Your task to perform on an android device: Go to notification settings Image 0: 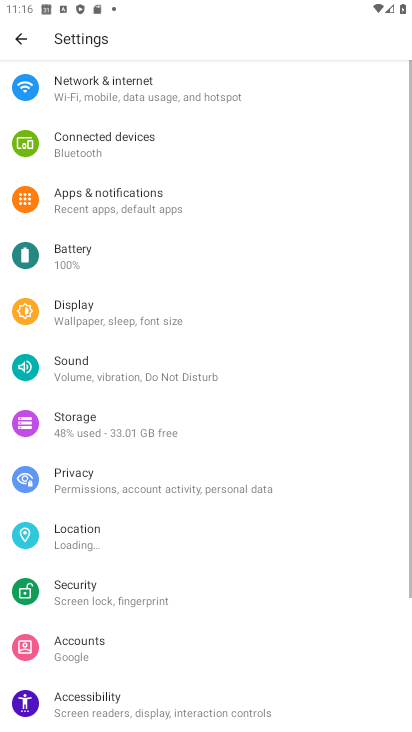
Step 0: press home button
Your task to perform on an android device: Go to notification settings Image 1: 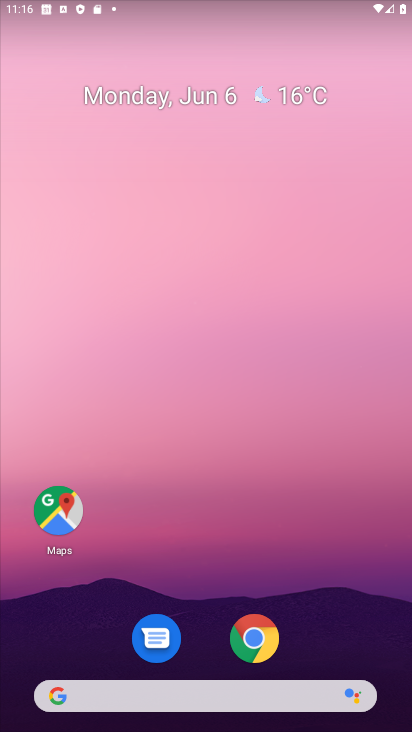
Step 1: drag from (244, 715) to (210, 137)
Your task to perform on an android device: Go to notification settings Image 2: 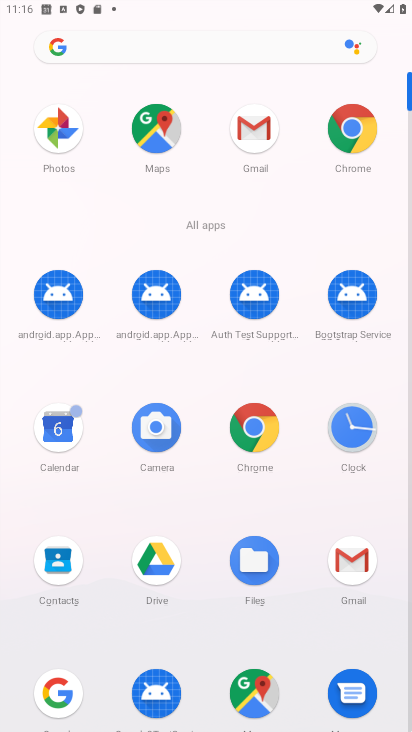
Step 2: drag from (216, 526) to (215, 405)
Your task to perform on an android device: Go to notification settings Image 3: 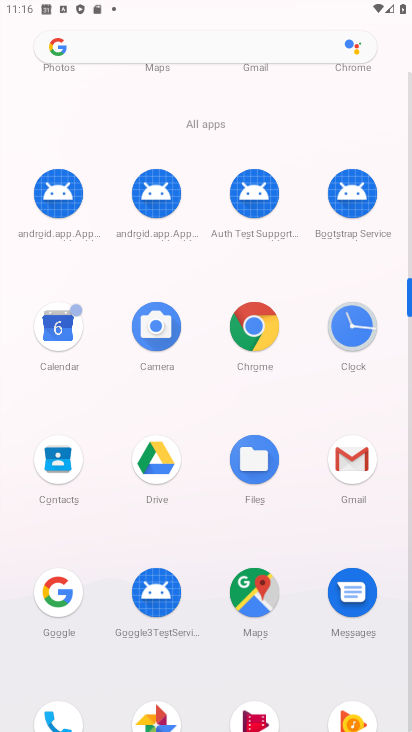
Step 3: drag from (209, 652) to (229, 487)
Your task to perform on an android device: Go to notification settings Image 4: 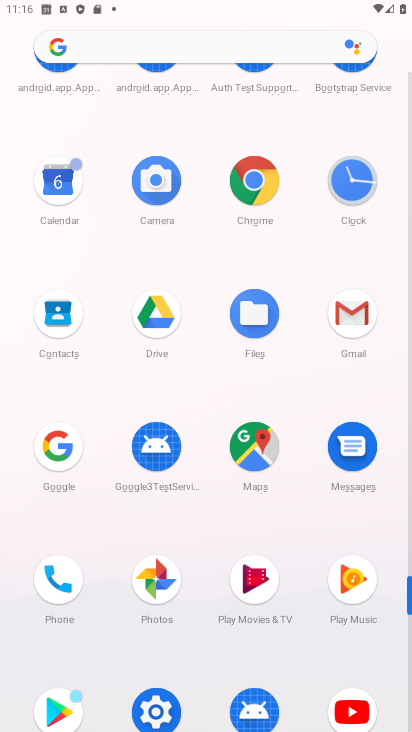
Step 4: click (154, 706)
Your task to perform on an android device: Go to notification settings Image 5: 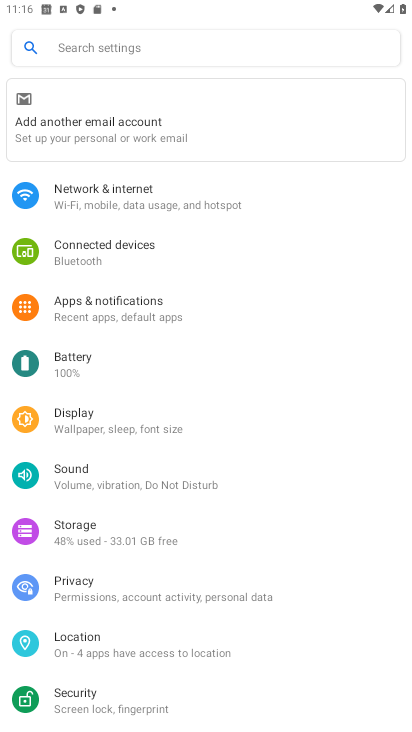
Step 5: click (158, 46)
Your task to perform on an android device: Go to notification settings Image 6: 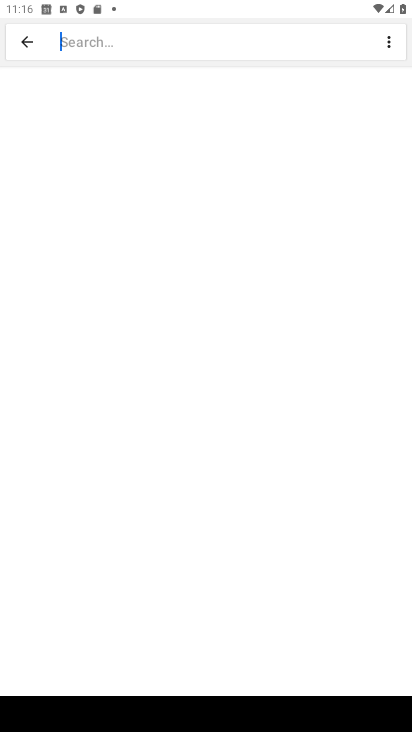
Step 6: drag from (377, 728) to (366, 642)
Your task to perform on an android device: Go to notification settings Image 7: 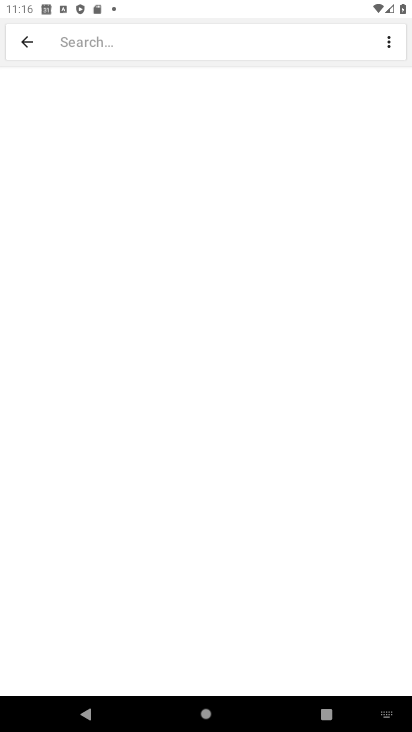
Step 7: click (390, 713)
Your task to perform on an android device: Go to notification settings Image 8: 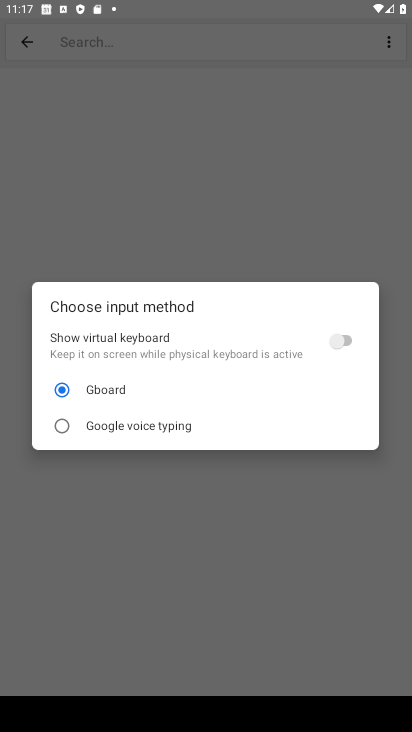
Step 8: click (349, 335)
Your task to perform on an android device: Go to notification settings Image 9: 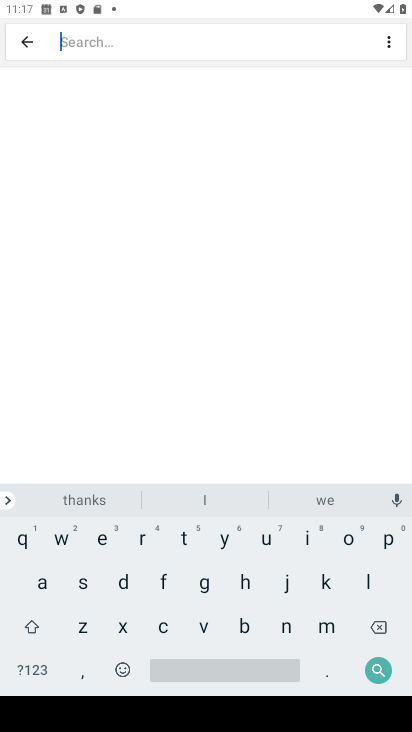
Step 9: click (288, 615)
Your task to perform on an android device: Go to notification settings Image 10: 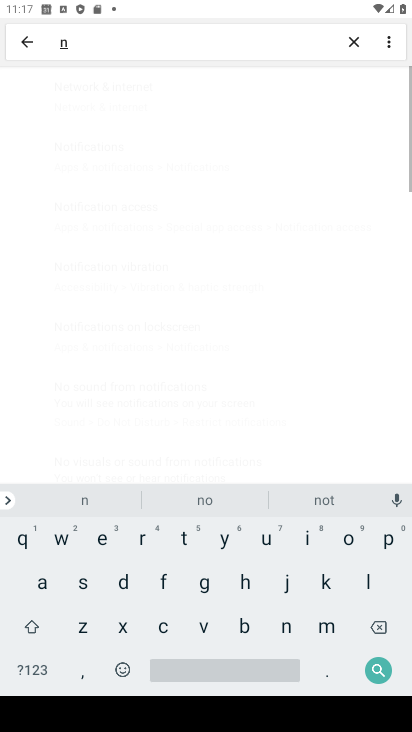
Step 10: click (341, 539)
Your task to perform on an android device: Go to notification settings Image 11: 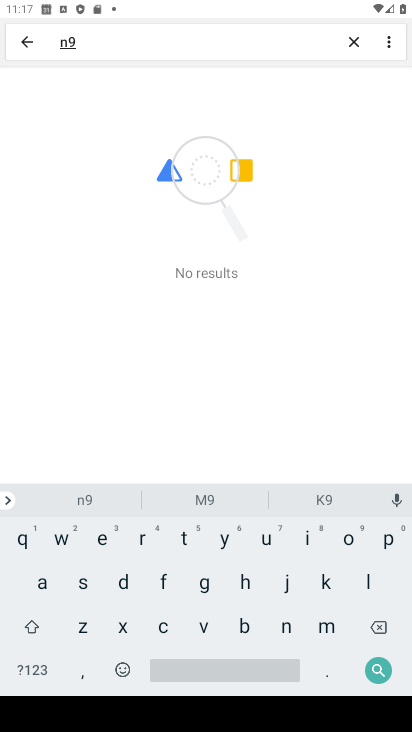
Step 11: click (384, 634)
Your task to perform on an android device: Go to notification settings Image 12: 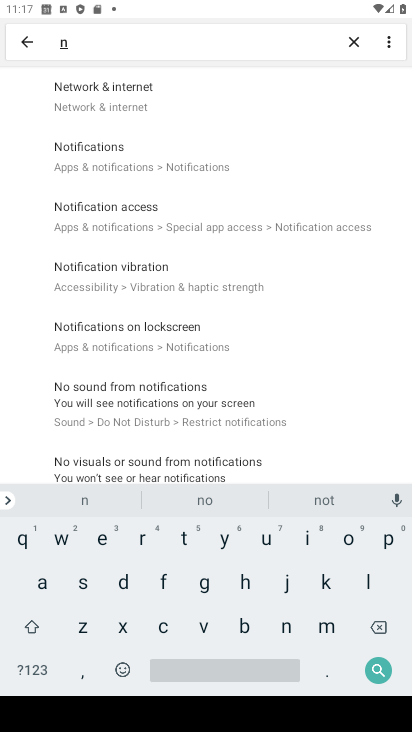
Step 12: click (343, 546)
Your task to perform on an android device: Go to notification settings Image 13: 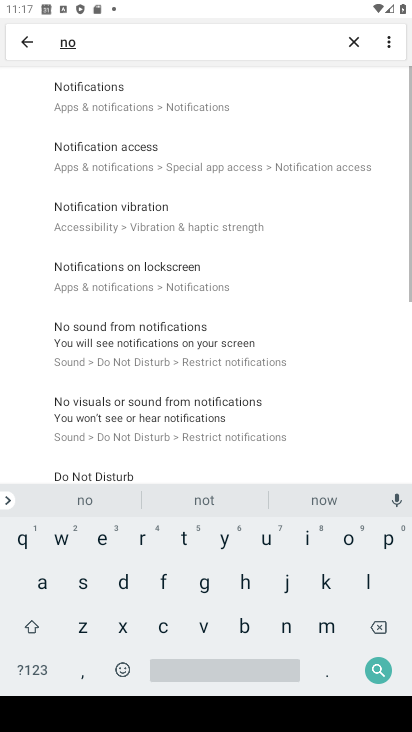
Step 13: click (113, 98)
Your task to perform on an android device: Go to notification settings Image 14: 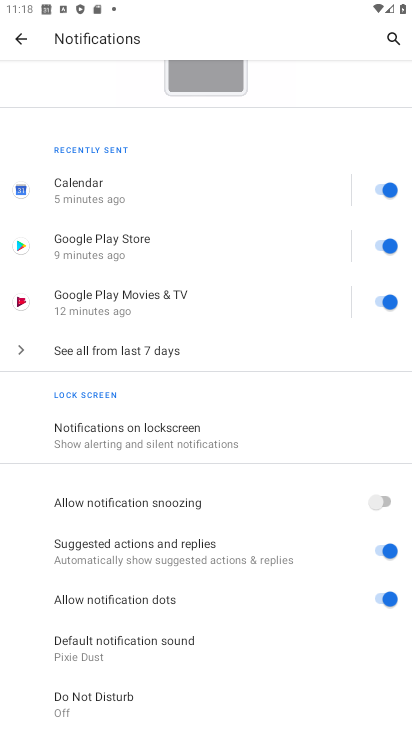
Step 14: click (110, 427)
Your task to perform on an android device: Go to notification settings Image 15: 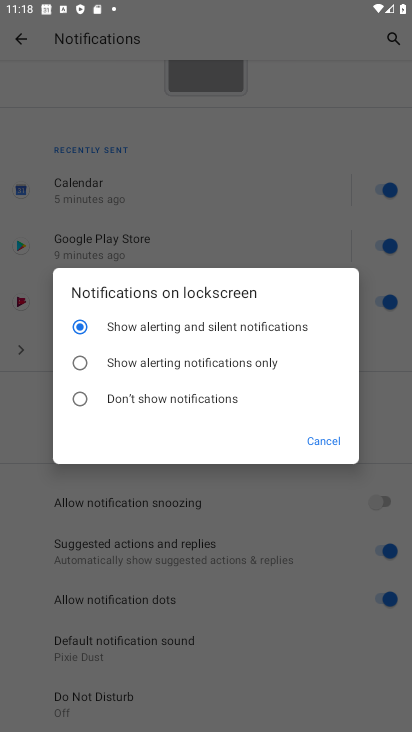
Step 15: task complete